Your task to perform on an android device: open app "Adobe Express: Graphic Design" Image 0: 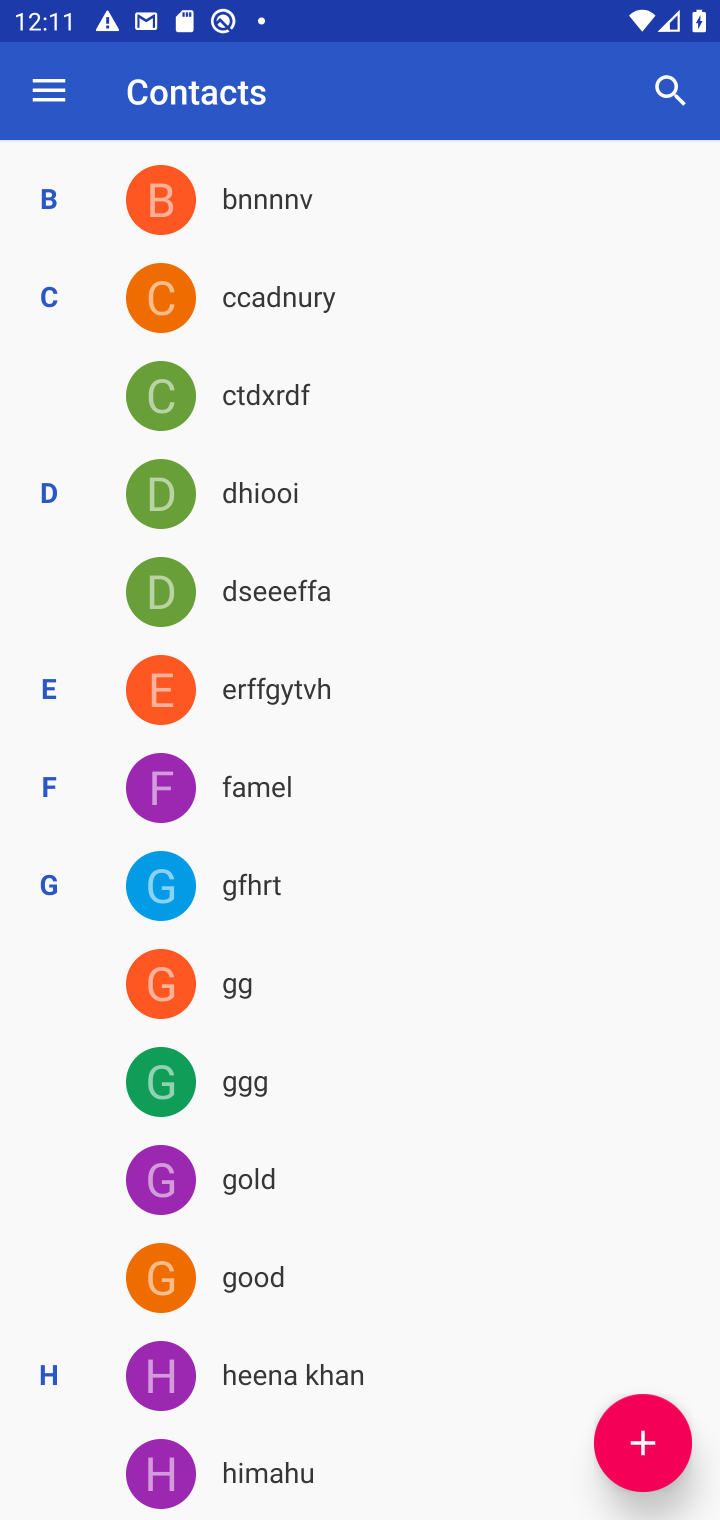
Step 0: press home button
Your task to perform on an android device: open app "Adobe Express: Graphic Design" Image 1: 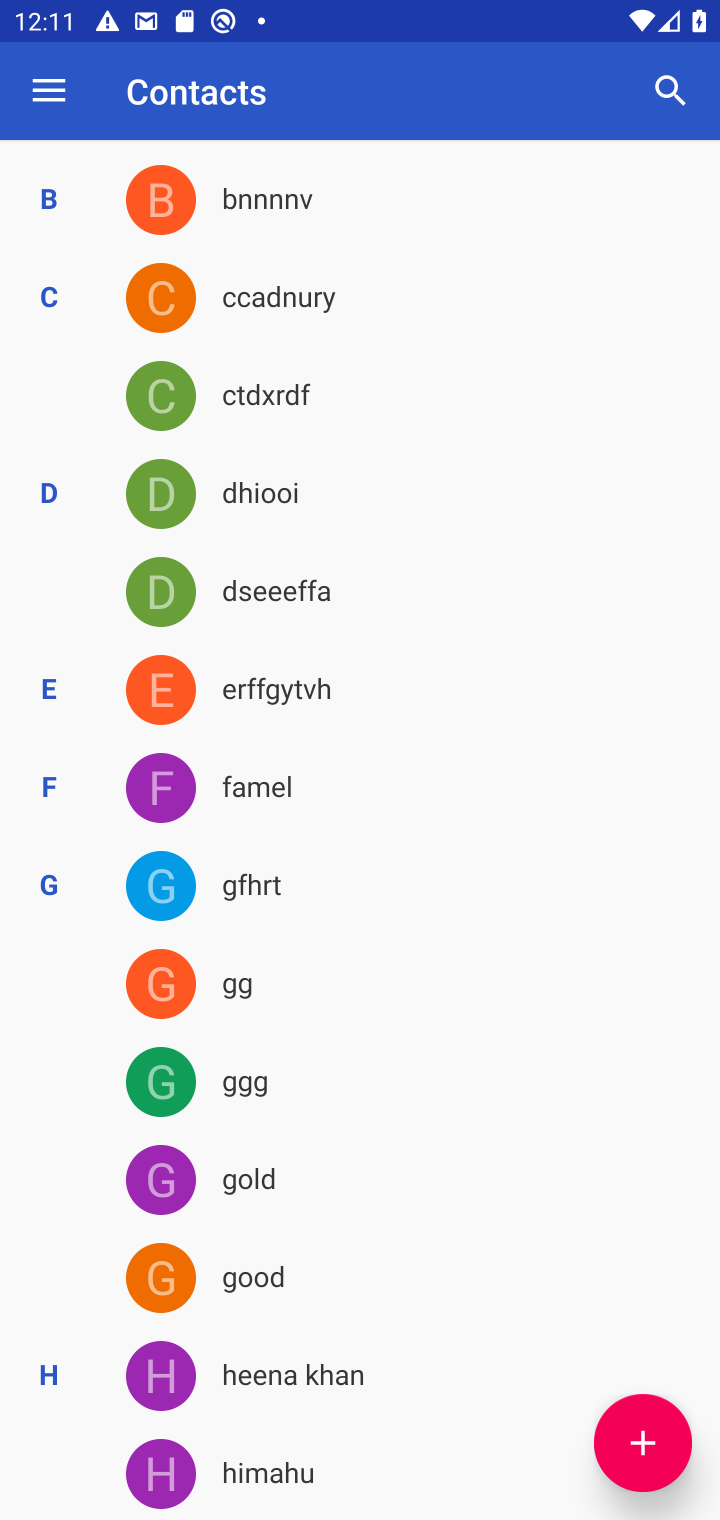
Step 1: press home button
Your task to perform on an android device: open app "Adobe Express: Graphic Design" Image 2: 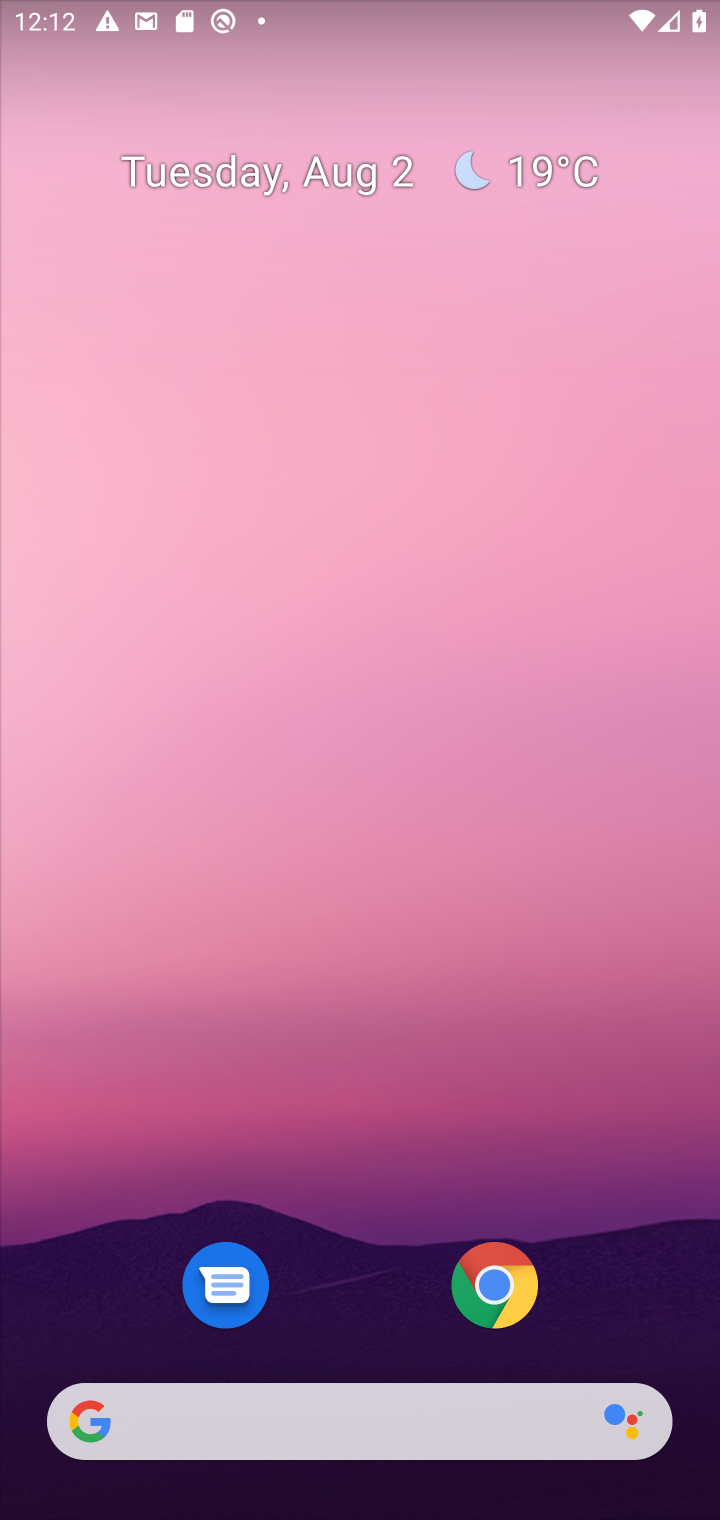
Step 2: drag from (366, 1180) to (326, 344)
Your task to perform on an android device: open app "Adobe Express: Graphic Design" Image 3: 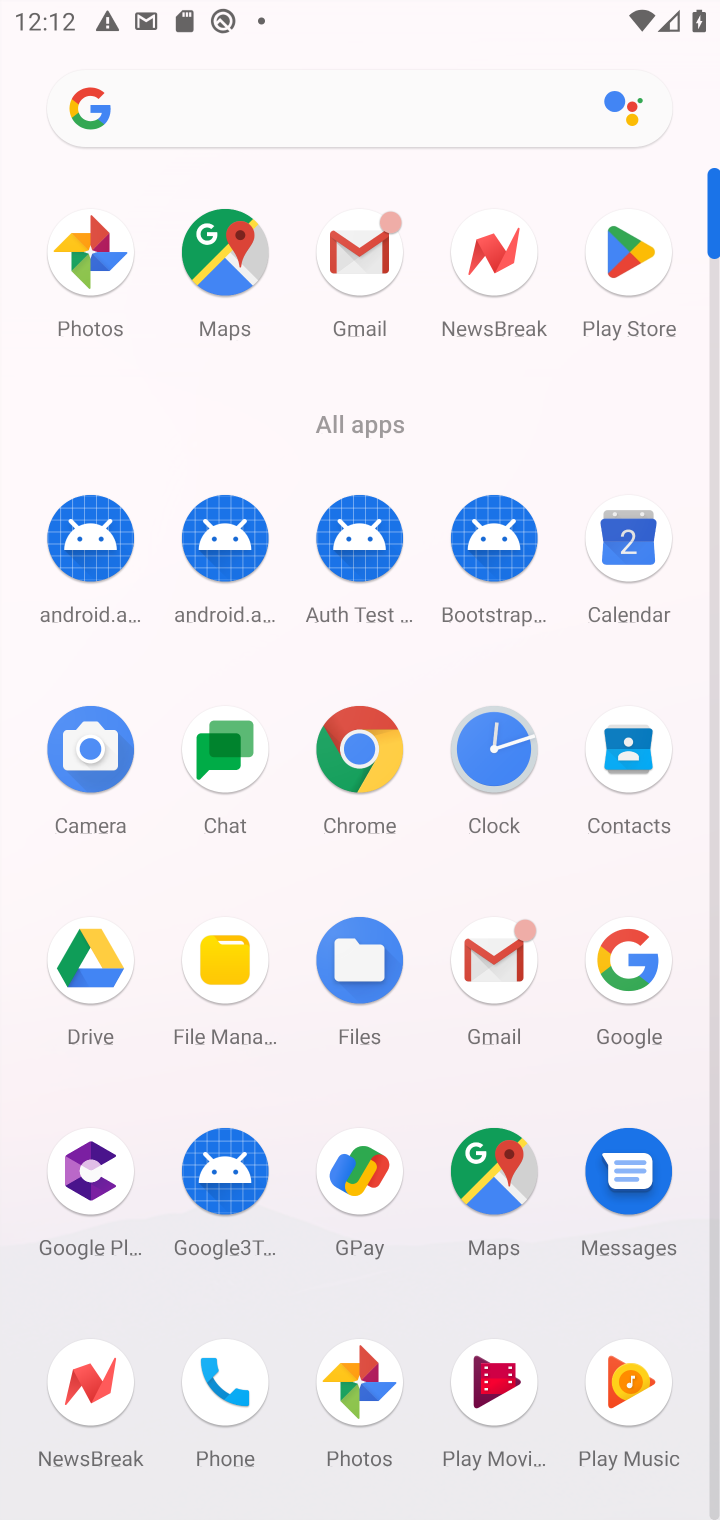
Step 3: click (651, 266)
Your task to perform on an android device: open app "Adobe Express: Graphic Design" Image 4: 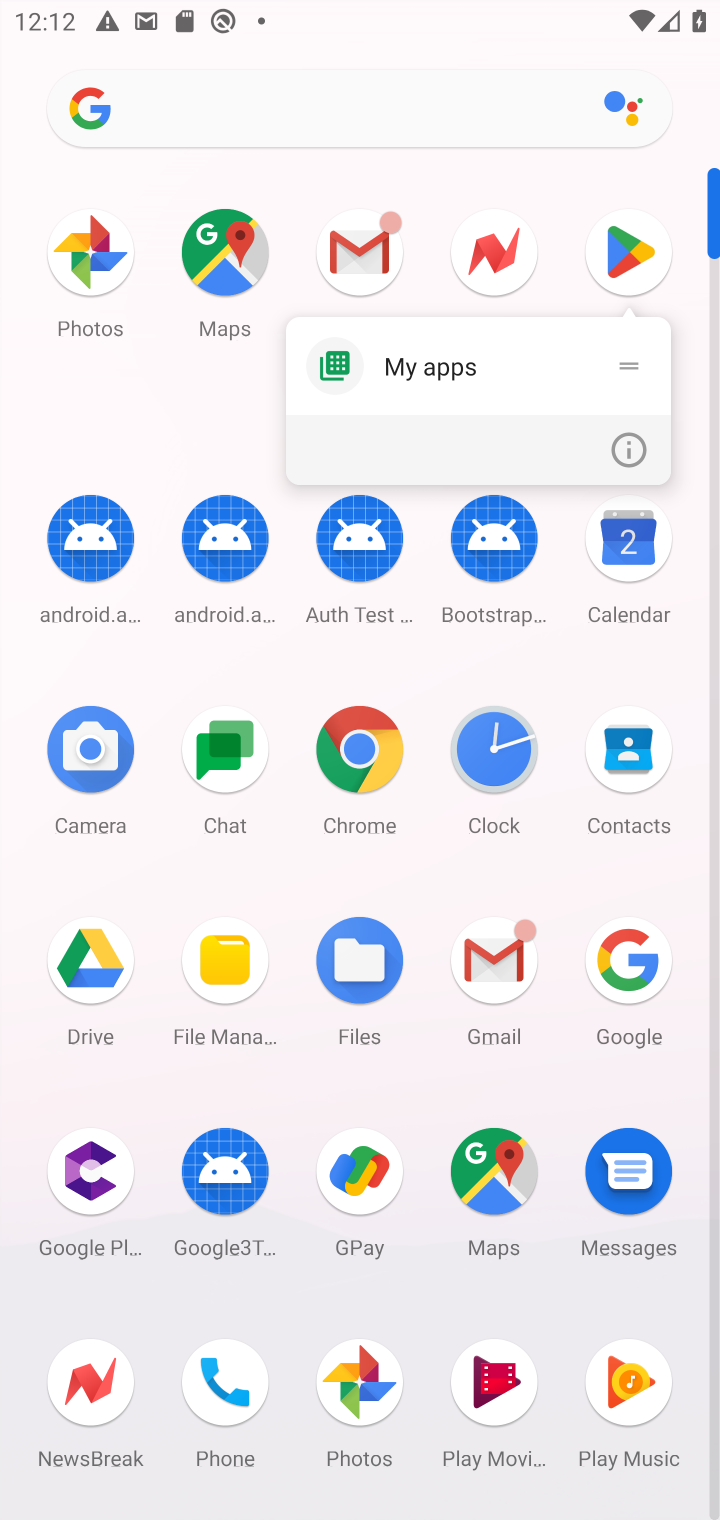
Step 4: click (611, 271)
Your task to perform on an android device: open app "Adobe Express: Graphic Design" Image 5: 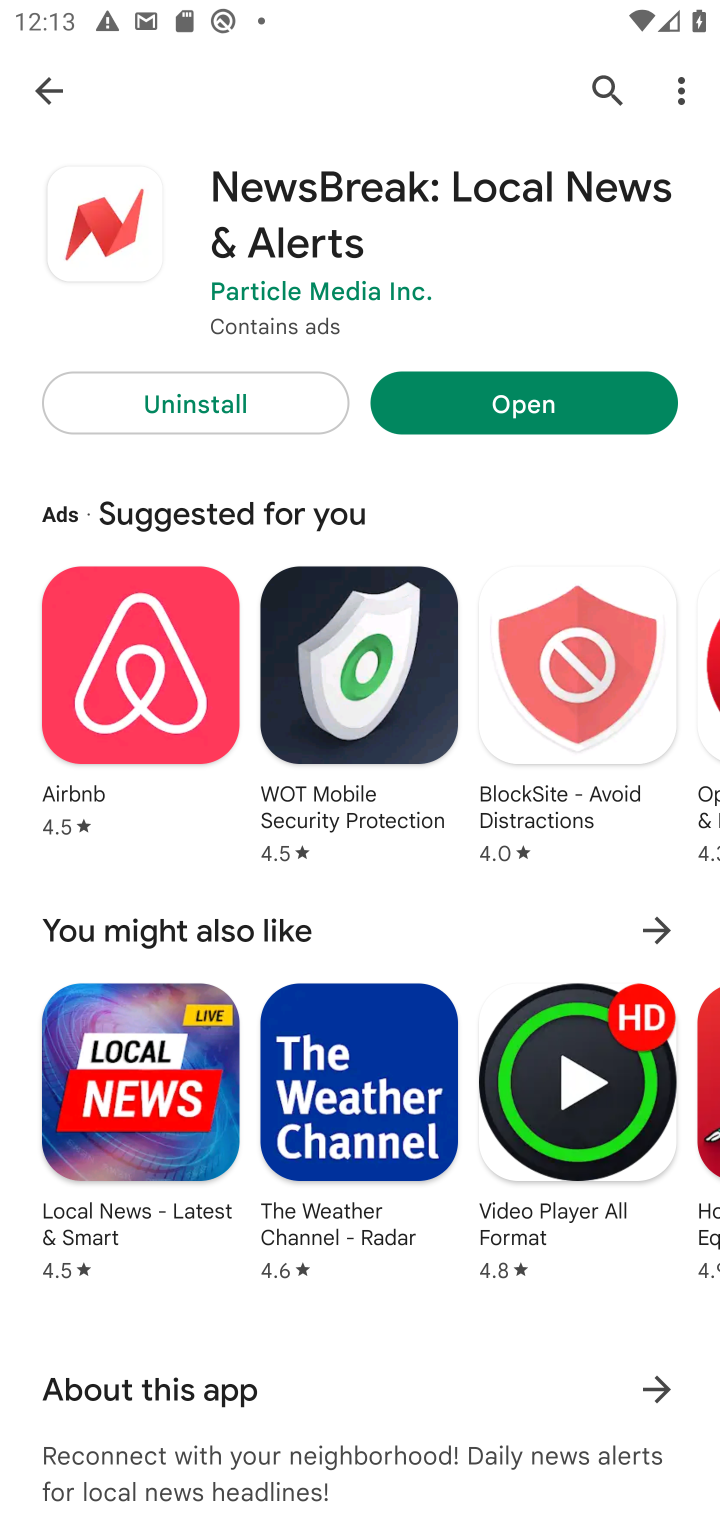
Step 5: click (596, 386)
Your task to perform on an android device: open app "Adobe Express: Graphic Design" Image 6: 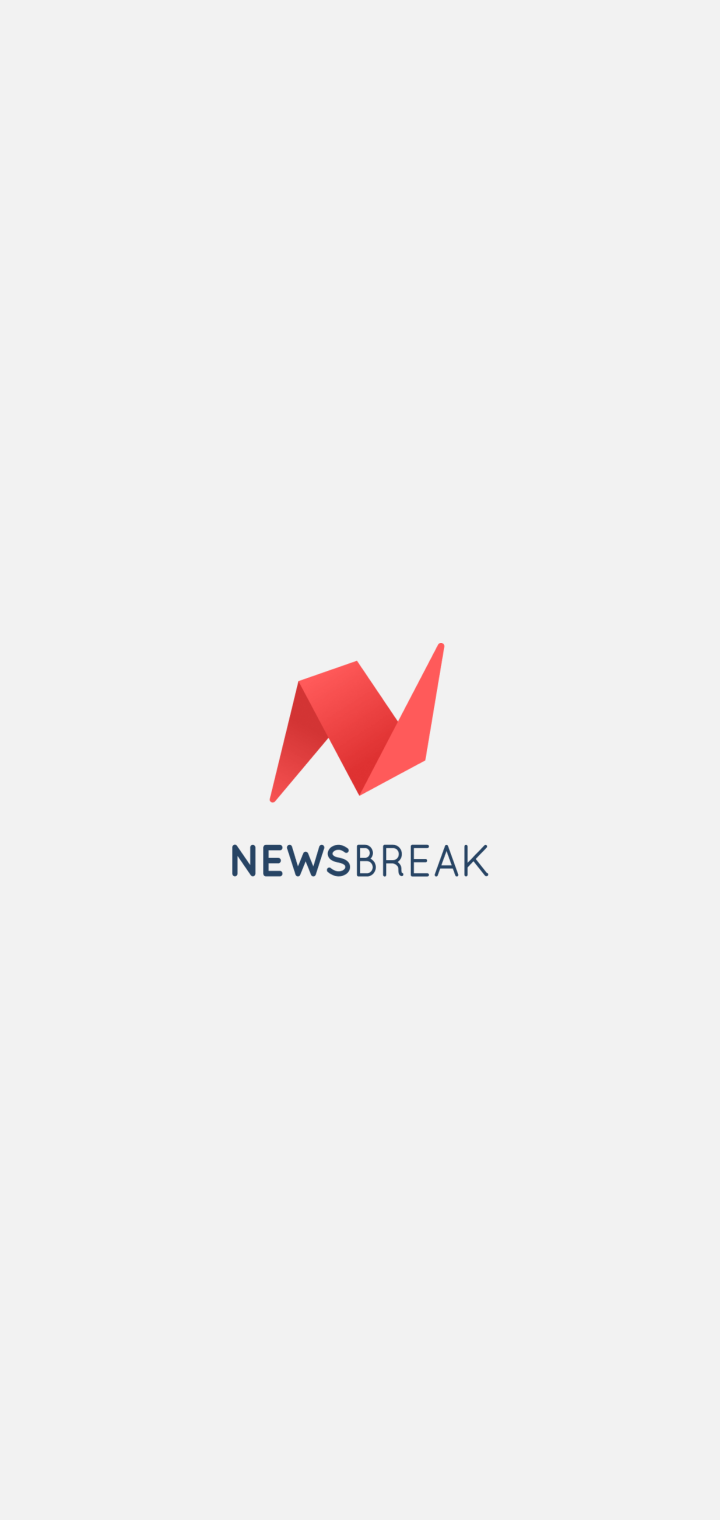
Step 6: task complete